Your task to perform on an android device: toggle priority inbox in the gmail app Image 0: 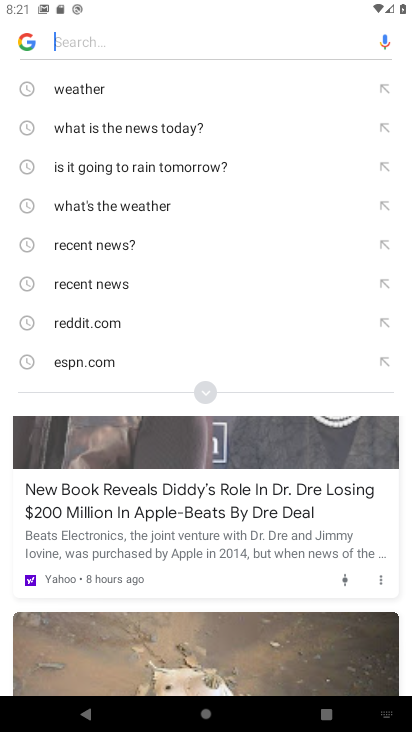
Step 0: press back button
Your task to perform on an android device: toggle priority inbox in the gmail app Image 1: 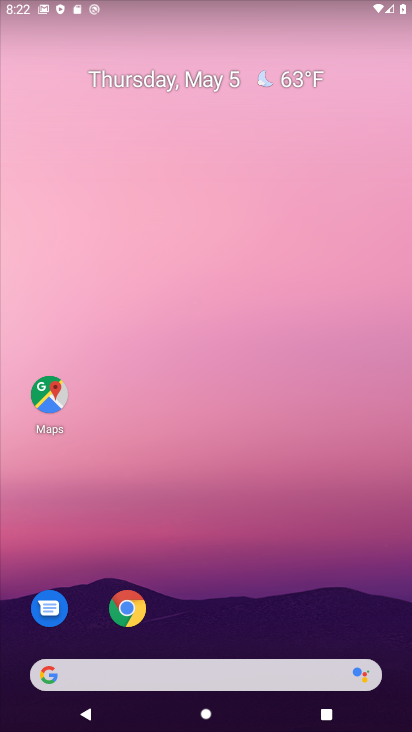
Step 1: drag from (137, 389) to (40, 70)
Your task to perform on an android device: toggle priority inbox in the gmail app Image 2: 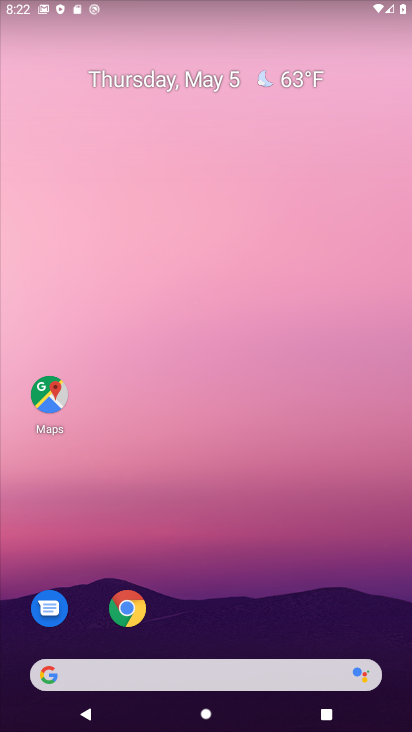
Step 2: drag from (182, 567) to (36, 25)
Your task to perform on an android device: toggle priority inbox in the gmail app Image 3: 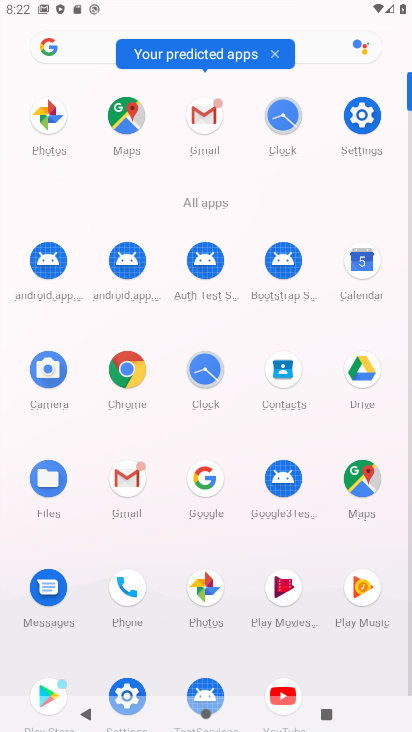
Step 3: click (197, 111)
Your task to perform on an android device: toggle priority inbox in the gmail app Image 4: 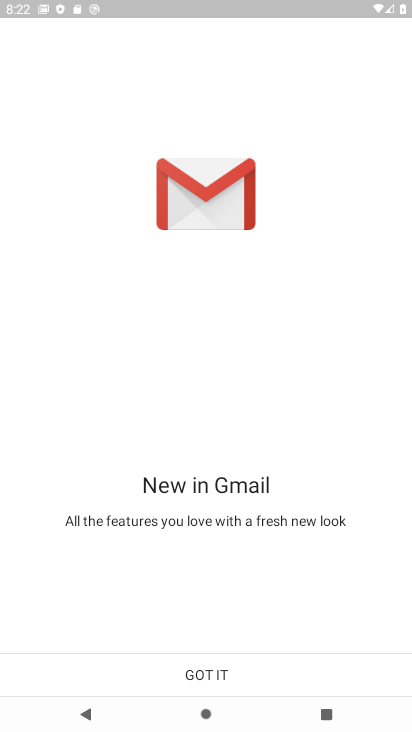
Step 4: click (193, 679)
Your task to perform on an android device: toggle priority inbox in the gmail app Image 5: 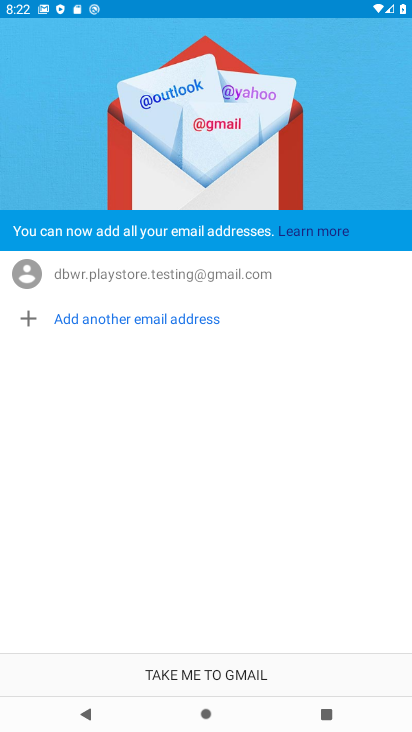
Step 5: click (192, 676)
Your task to perform on an android device: toggle priority inbox in the gmail app Image 6: 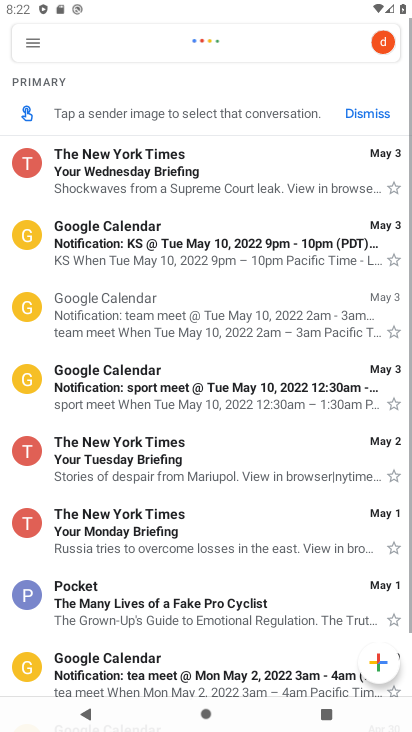
Step 6: click (34, 43)
Your task to perform on an android device: toggle priority inbox in the gmail app Image 7: 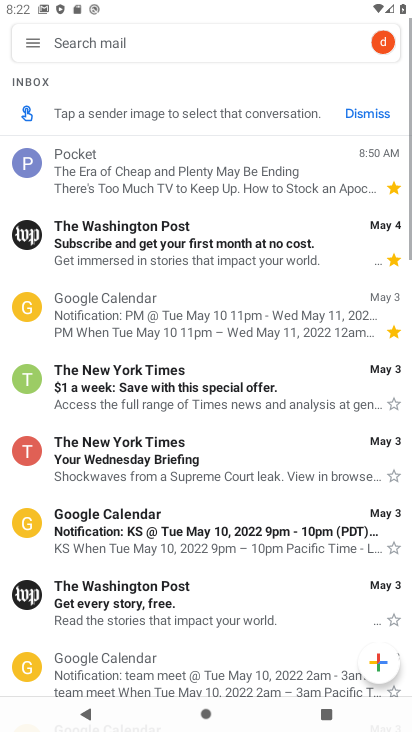
Step 7: click (32, 43)
Your task to perform on an android device: toggle priority inbox in the gmail app Image 8: 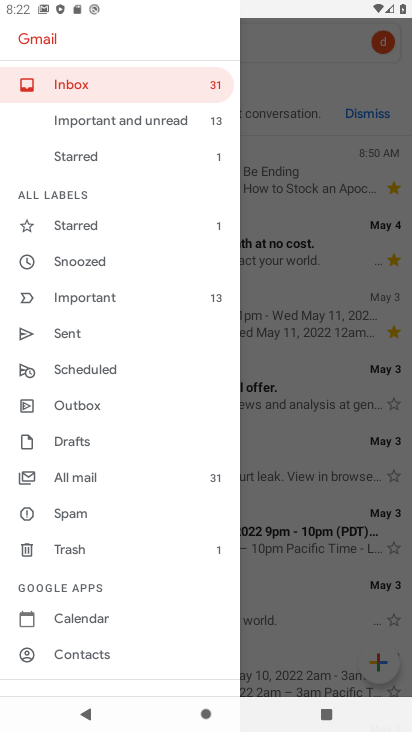
Step 8: drag from (81, 640) to (78, 237)
Your task to perform on an android device: toggle priority inbox in the gmail app Image 9: 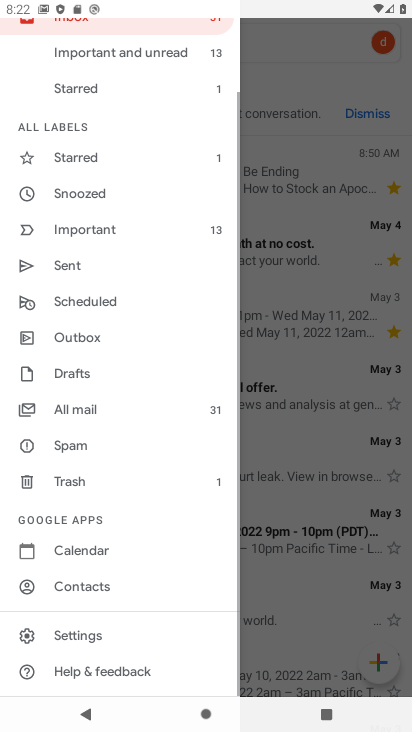
Step 9: click (73, 635)
Your task to perform on an android device: toggle priority inbox in the gmail app Image 10: 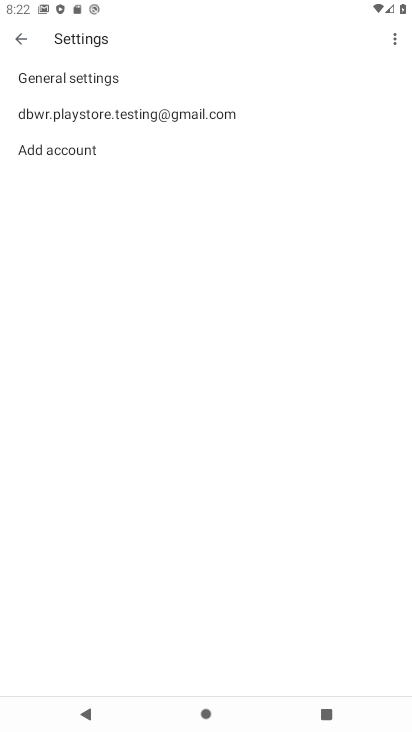
Step 10: click (73, 115)
Your task to perform on an android device: toggle priority inbox in the gmail app Image 11: 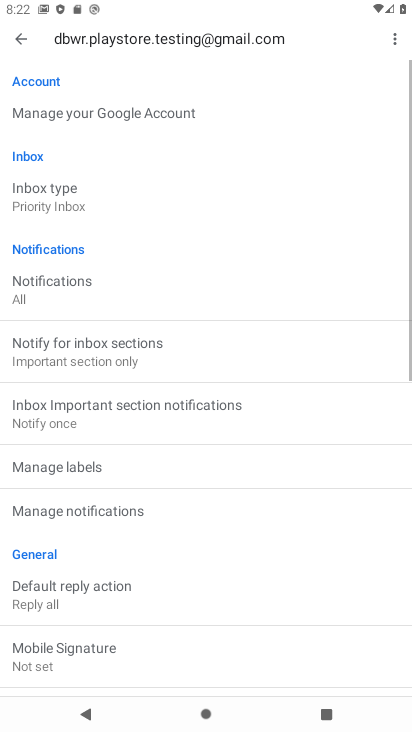
Step 11: click (50, 197)
Your task to perform on an android device: toggle priority inbox in the gmail app Image 12: 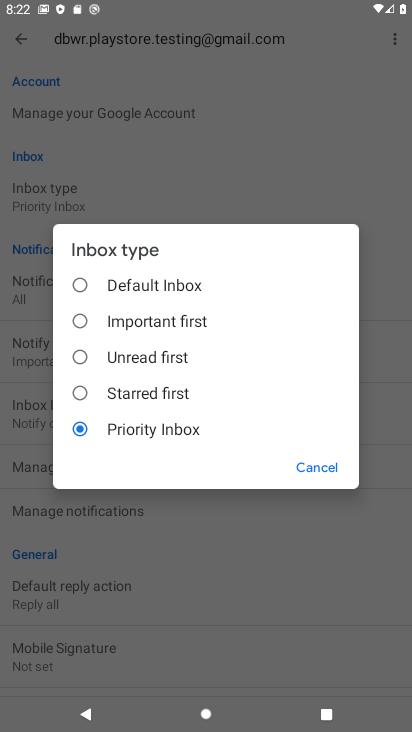
Step 12: click (121, 281)
Your task to perform on an android device: toggle priority inbox in the gmail app Image 13: 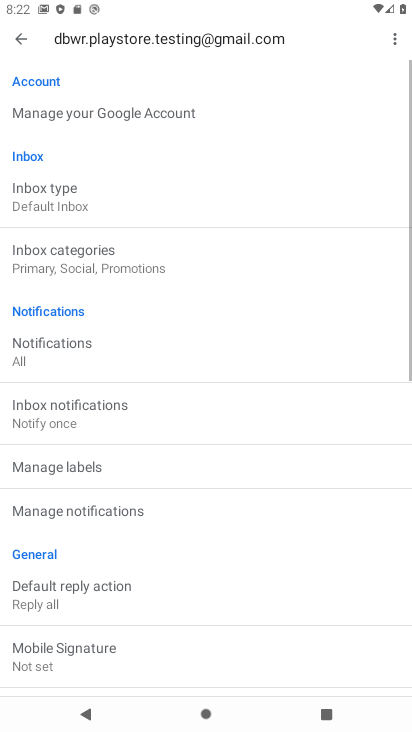
Step 13: task complete